Your task to perform on an android device: Go to Android settings Image 0: 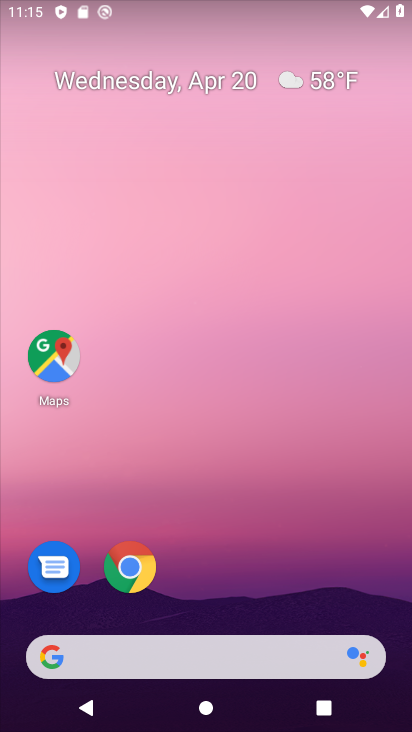
Step 0: drag from (381, 557) to (309, 161)
Your task to perform on an android device: Go to Android settings Image 1: 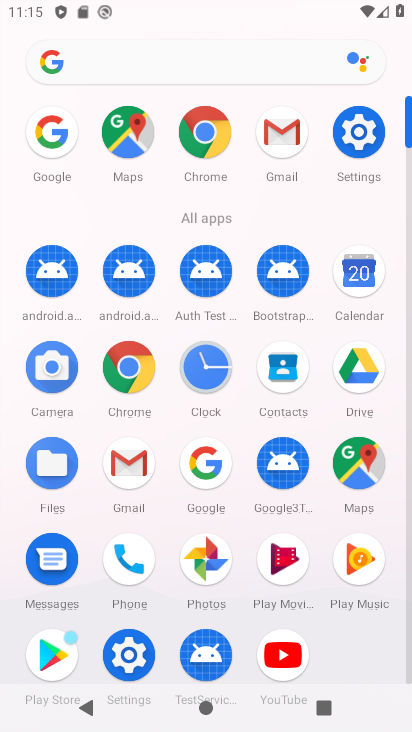
Step 1: click (357, 146)
Your task to perform on an android device: Go to Android settings Image 2: 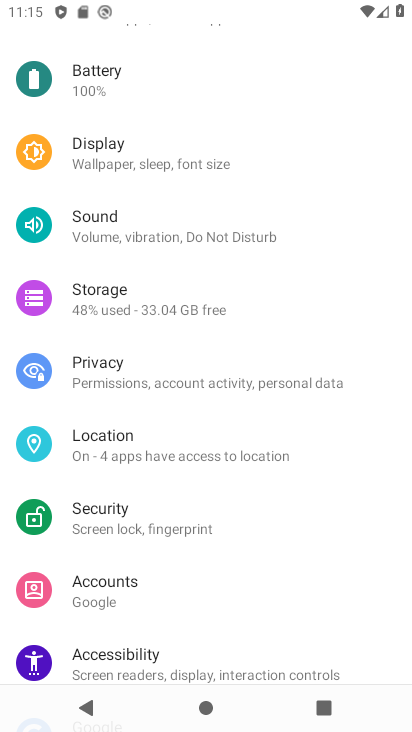
Step 2: task complete